Your task to perform on an android device: open app "Spotify" (install if not already installed), go to login, and select forgot password Image 0: 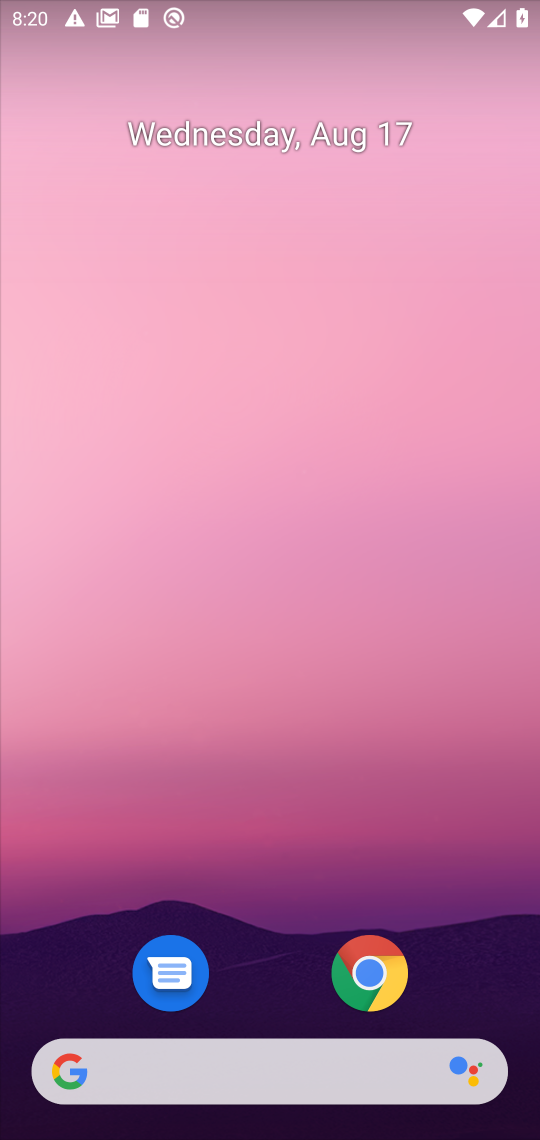
Step 0: drag from (312, 981) to (351, 8)
Your task to perform on an android device: open app "Spotify" (install if not already installed), go to login, and select forgot password Image 1: 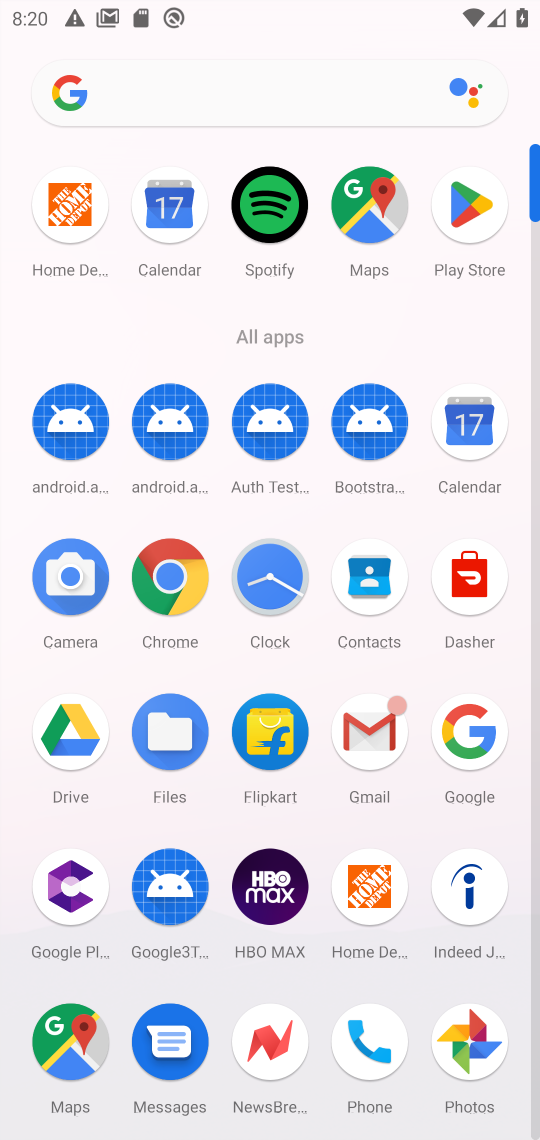
Step 1: click (458, 241)
Your task to perform on an android device: open app "Spotify" (install if not already installed), go to login, and select forgot password Image 2: 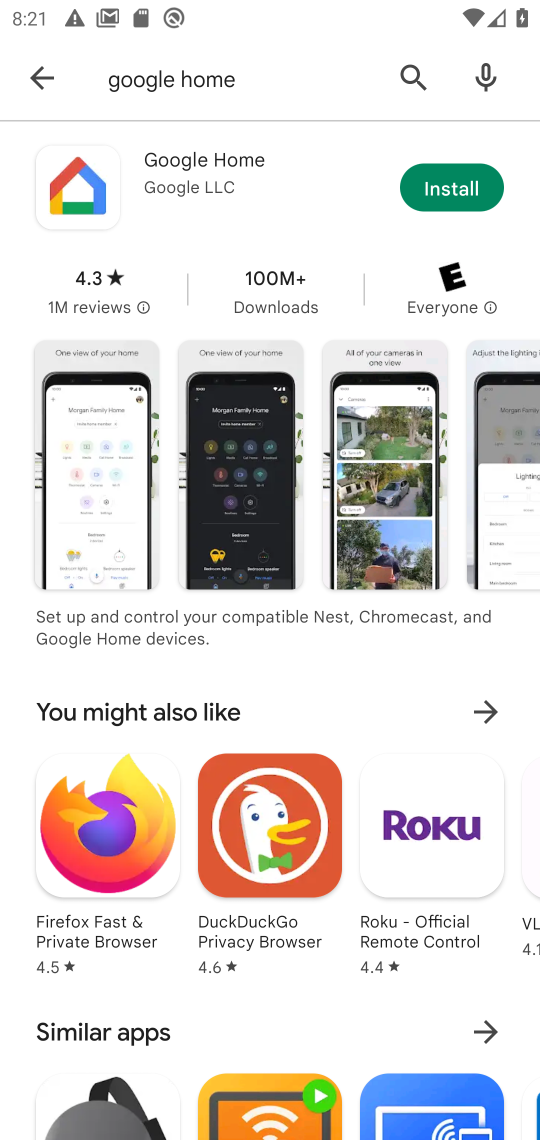
Step 2: click (56, 87)
Your task to perform on an android device: open app "Spotify" (install if not already installed), go to login, and select forgot password Image 3: 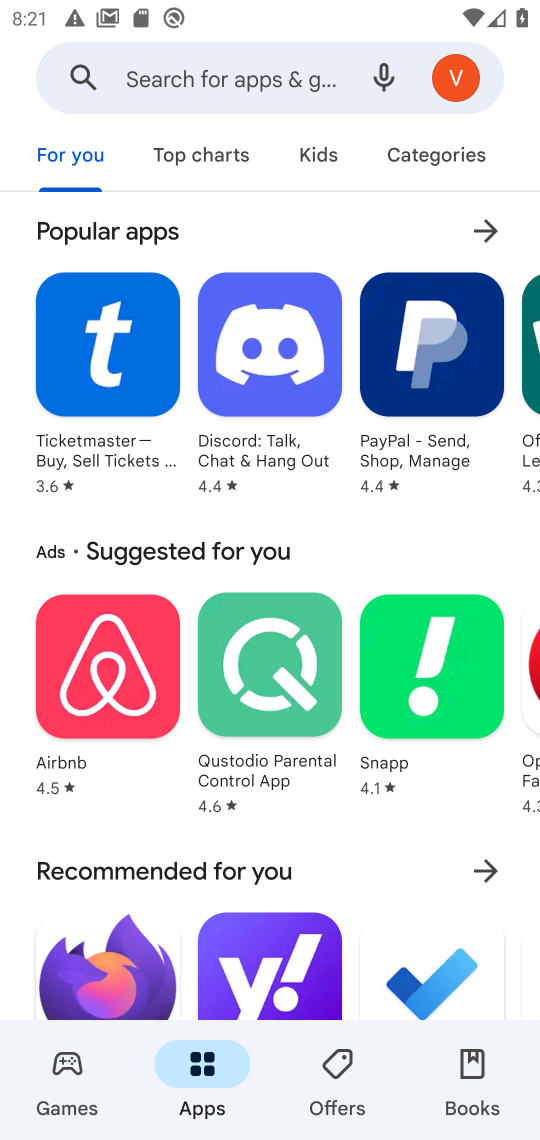
Step 3: click (189, 86)
Your task to perform on an android device: open app "Spotify" (install if not already installed), go to login, and select forgot password Image 4: 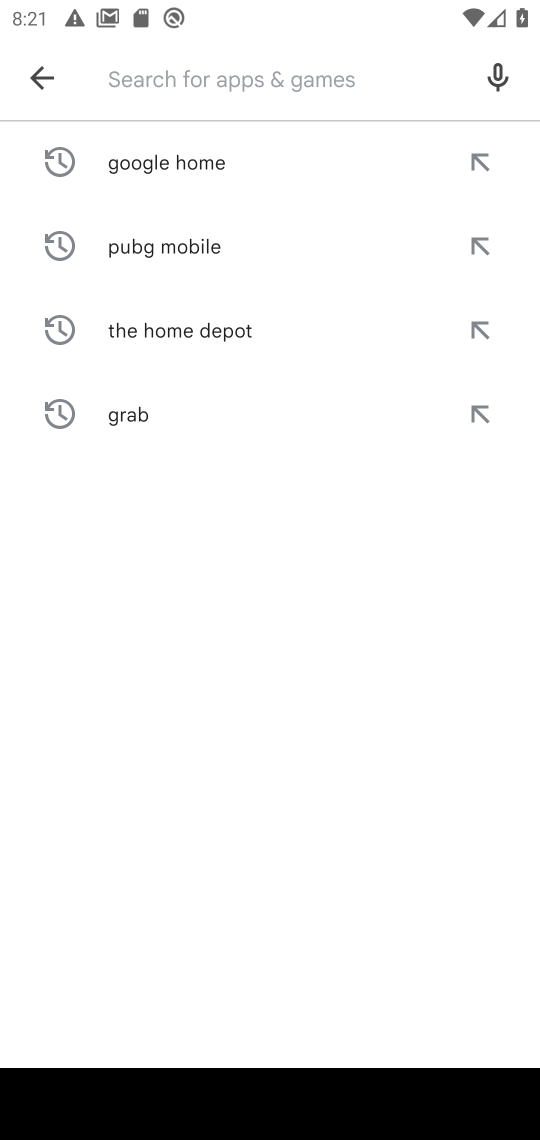
Step 4: type "Spotify"
Your task to perform on an android device: open app "Spotify" (install if not already installed), go to login, and select forgot password Image 5: 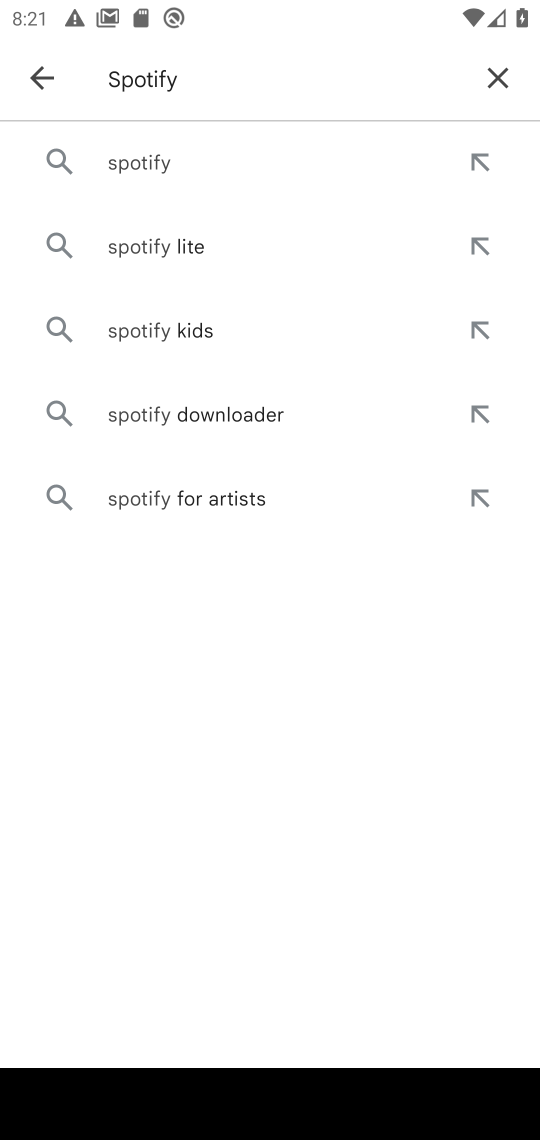
Step 5: click (253, 163)
Your task to perform on an android device: open app "Spotify" (install if not already installed), go to login, and select forgot password Image 6: 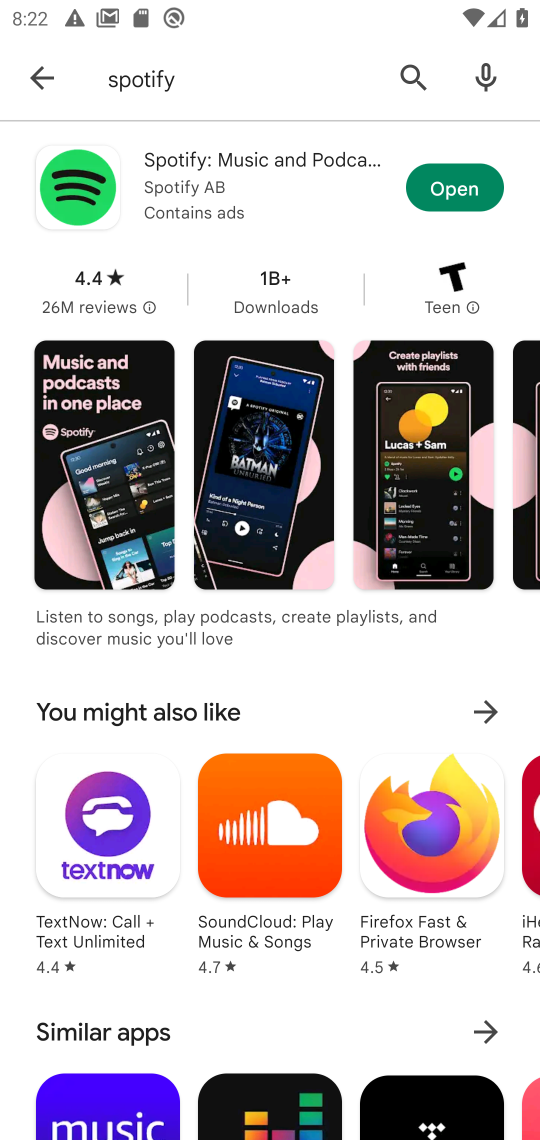
Step 6: click (444, 188)
Your task to perform on an android device: open app "Spotify" (install if not already installed), go to login, and select forgot password Image 7: 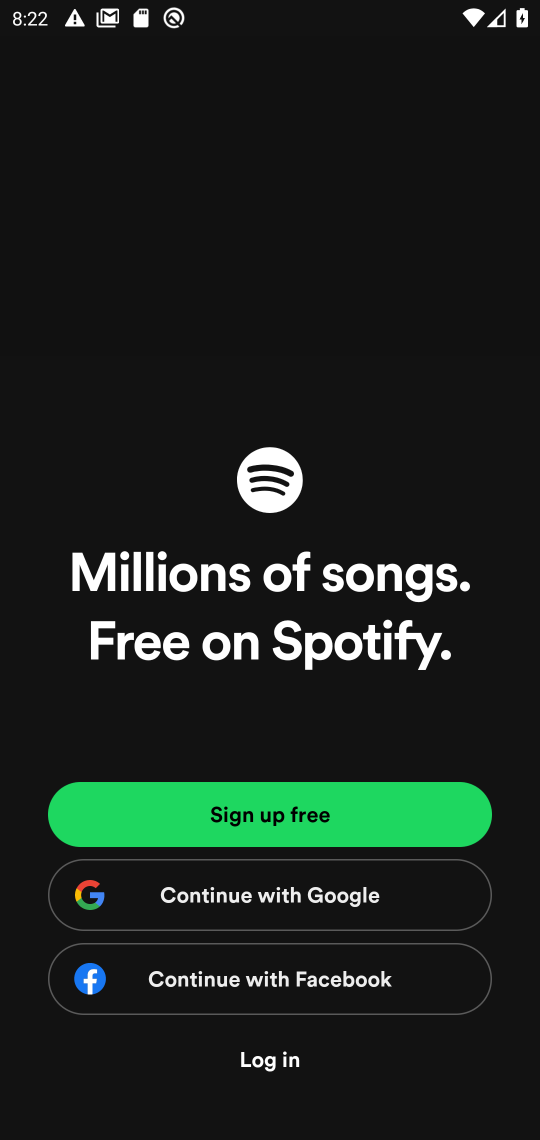
Step 7: task complete